Your task to perform on an android device: What is the recent news? Image 0: 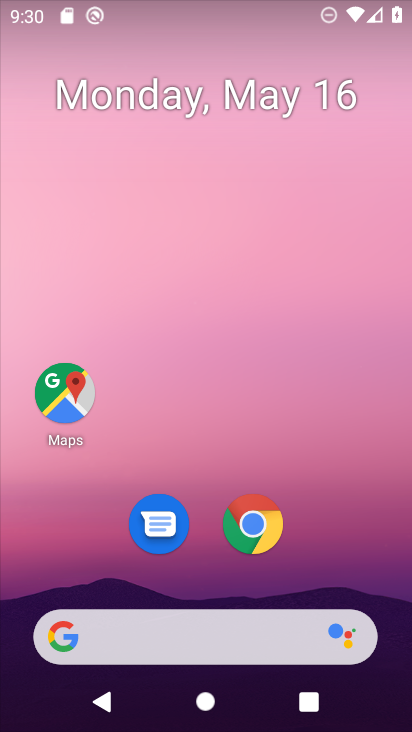
Step 0: click (160, 633)
Your task to perform on an android device: What is the recent news? Image 1: 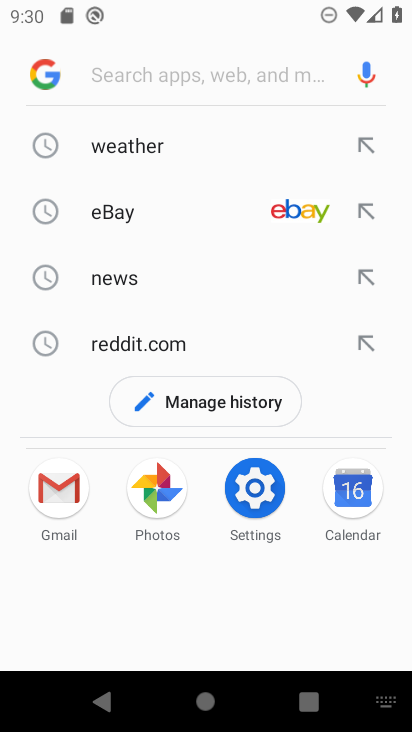
Step 1: click (97, 259)
Your task to perform on an android device: What is the recent news? Image 2: 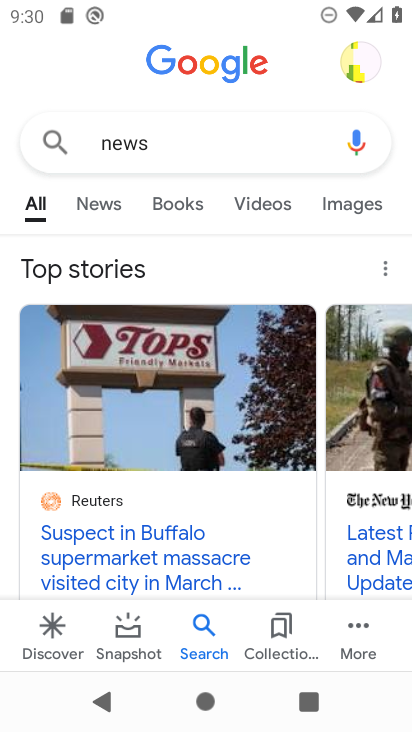
Step 2: task complete